Your task to perform on an android device: turn on airplane mode Image 0: 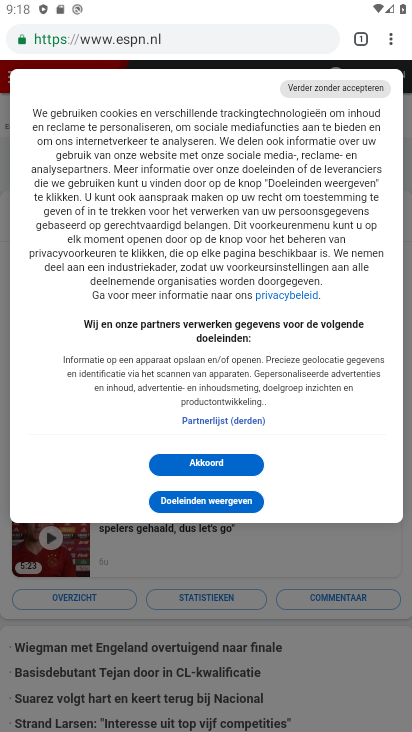
Step 0: press home button
Your task to perform on an android device: turn on airplane mode Image 1: 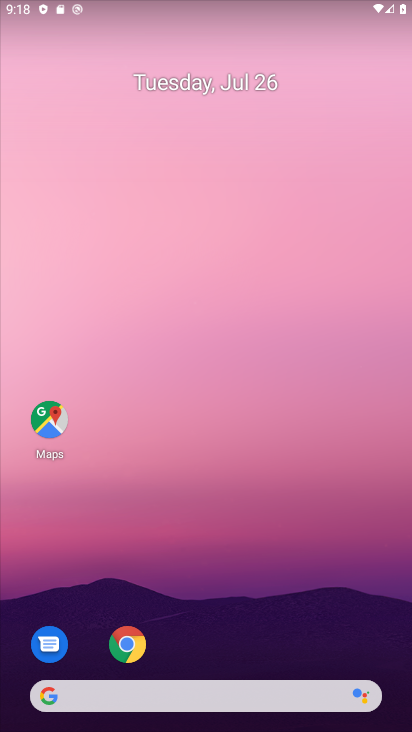
Step 1: drag from (188, 641) to (188, 2)
Your task to perform on an android device: turn on airplane mode Image 2: 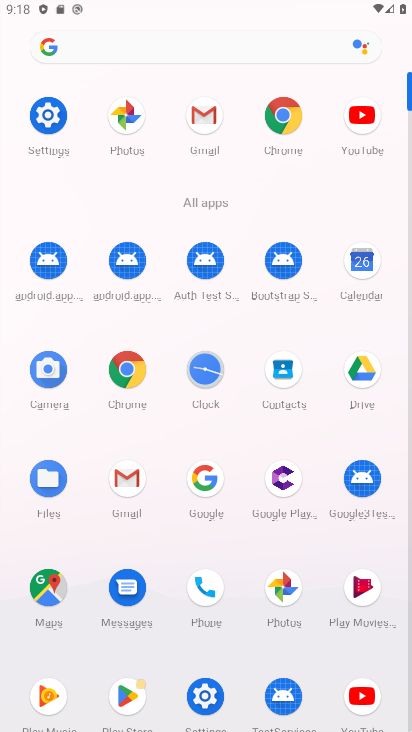
Step 2: click (52, 122)
Your task to perform on an android device: turn on airplane mode Image 3: 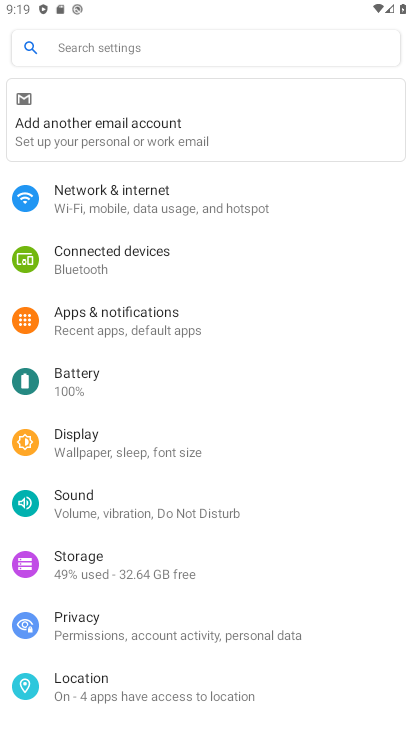
Step 3: click (172, 208)
Your task to perform on an android device: turn on airplane mode Image 4: 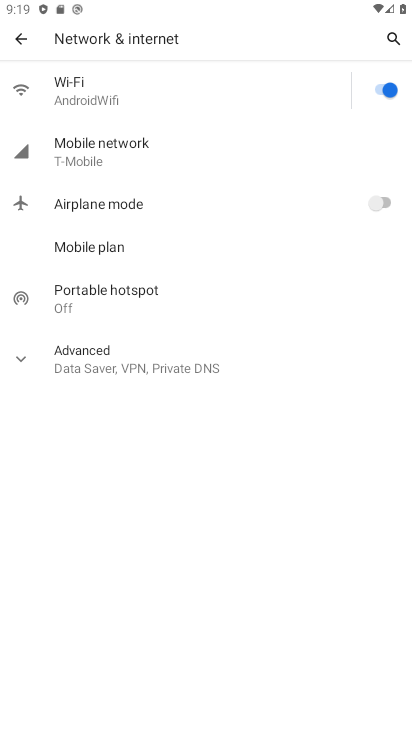
Step 4: click (397, 201)
Your task to perform on an android device: turn on airplane mode Image 5: 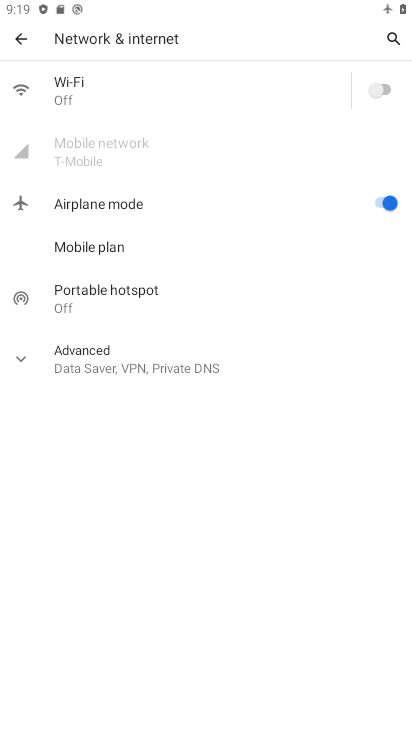
Step 5: task complete